Your task to perform on an android device: change your default location settings in chrome Image 0: 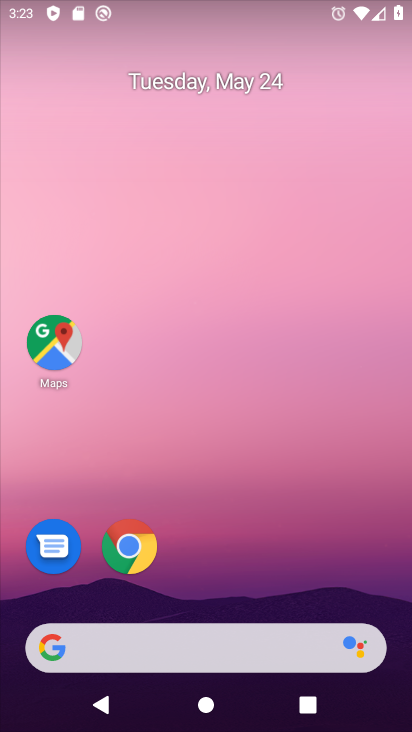
Step 0: drag from (274, 521) to (224, 9)
Your task to perform on an android device: change your default location settings in chrome Image 1: 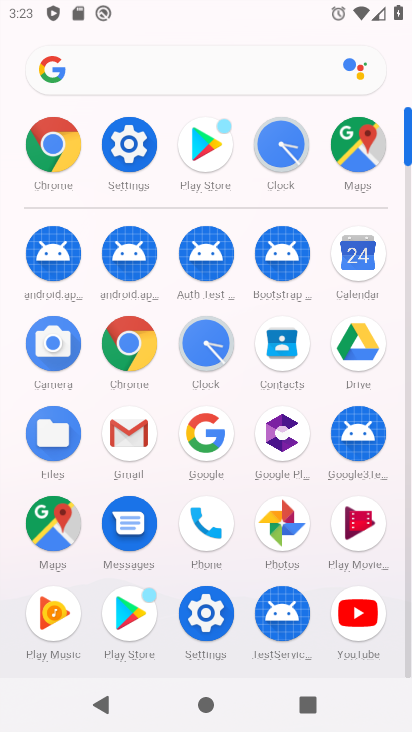
Step 1: click (46, 100)
Your task to perform on an android device: change your default location settings in chrome Image 2: 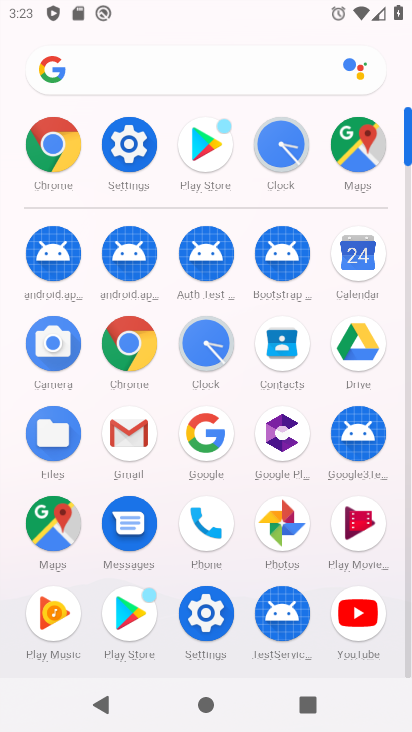
Step 2: click (50, 126)
Your task to perform on an android device: change your default location settings in chrome Image 3: 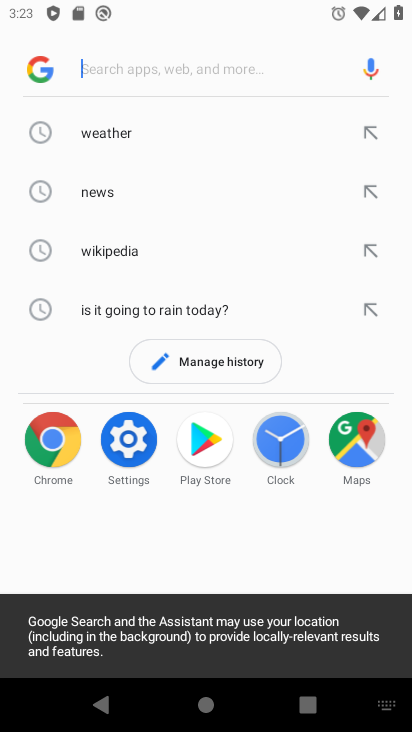
Step 3: click (53, 440)
Your task to perform on an android device: change your default location settings in chrome Image 4: 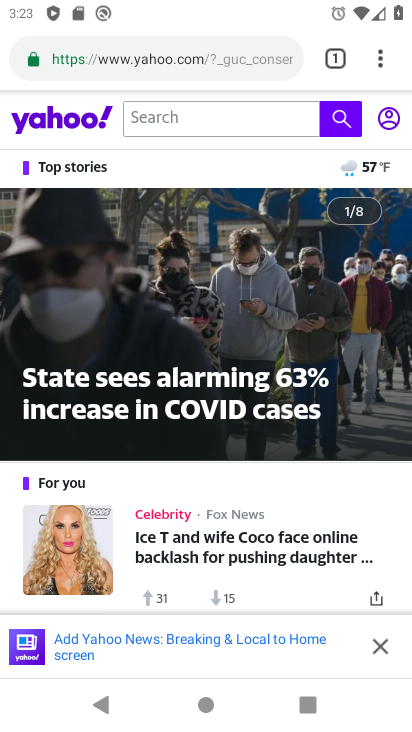
Step 4: drag from (378, 54) to (167, 566)
Your task to perform on an android device: change your default location settings in chrome Image 5: 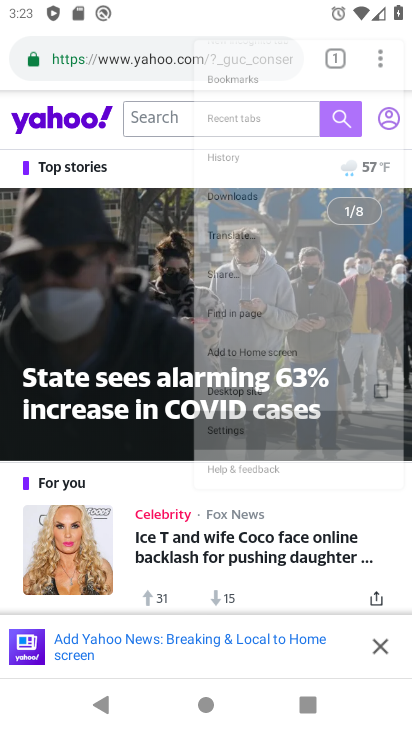
Step 5: click (187, 568)
Your task to perform on an android device: change your default location settings in chrome Image 6: 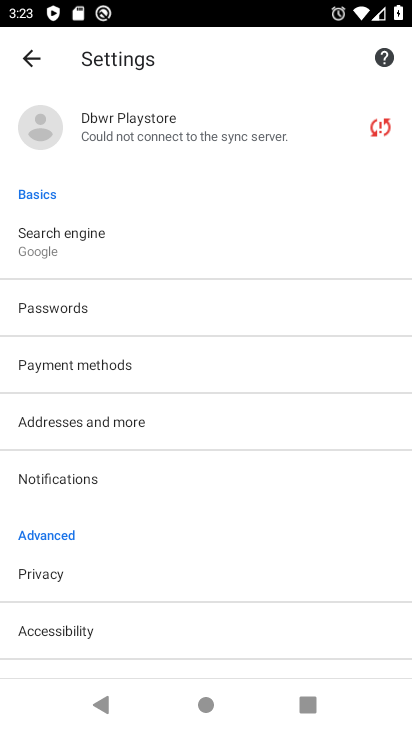
Step 6: drag from (141, 350) to (145, 142)
Your task to perform on an android device: change your default location settings in chrome Image 7: 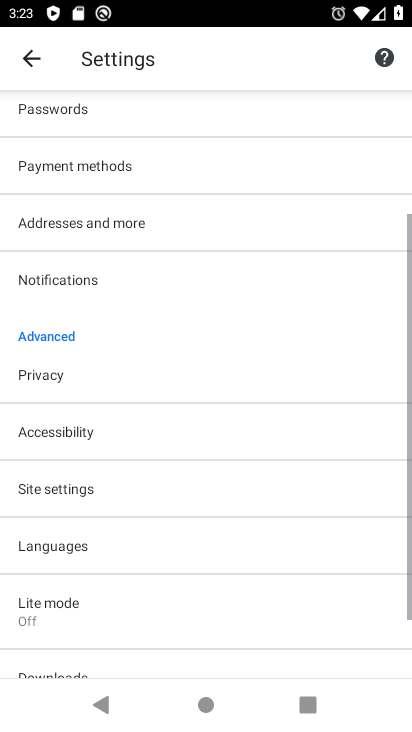
Step 7: drag from (180, 477) to (216, 200)
Your task to perform on an android device: change your default location settings in chrome Image 8: 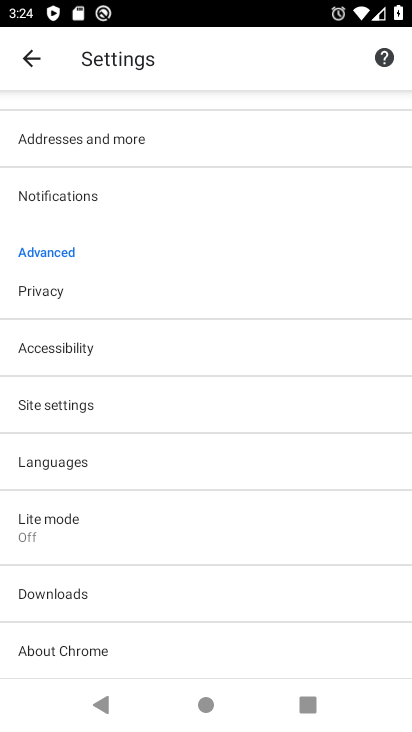
Step 8: click (57, 409)
Your task to perform on an android device: change your default location settings in chrome Image 9: 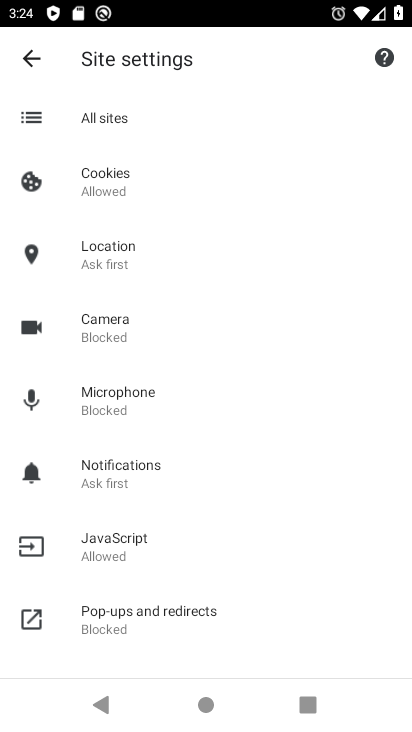
Step 9: click (97, 242)
Your task to perform on an android device: change your default location settings in chrome Image 10: 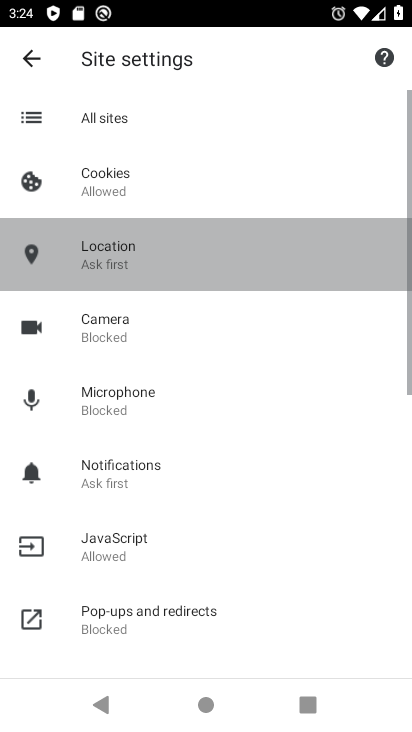
Step 10: click (97, 242)
Your task to perform on an android device: change your default location settings in chrome Image 11: 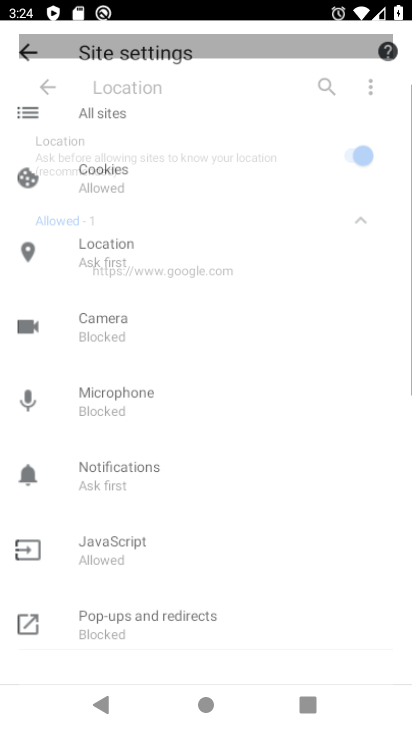
Step 11: click (97, 241)
Your task to perform on an android device: change your default location settings in chrome Image 12: 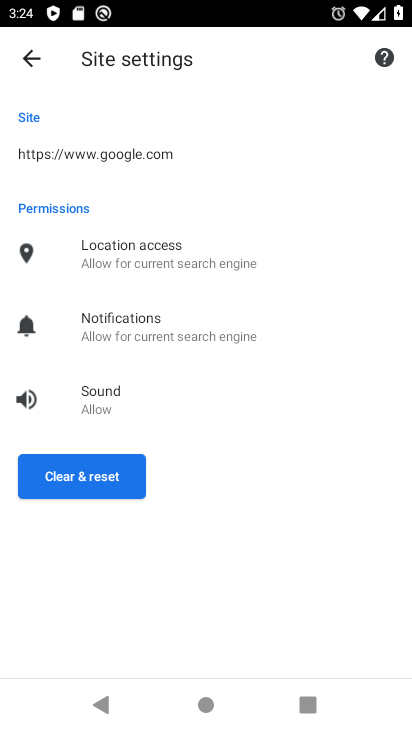
Step 12: click (34, 51)
Your task to perform on an android device: change your default location settings in chrome Image 13: 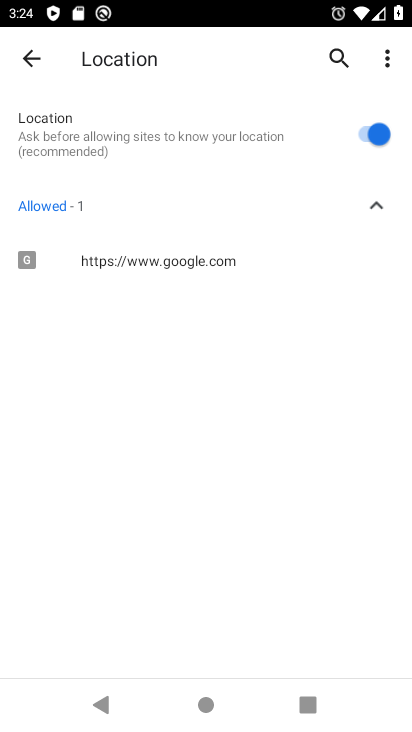
Step 13: click (374, 132)
Your task to perform on an android device: change your default location settings in chrome Image 14: 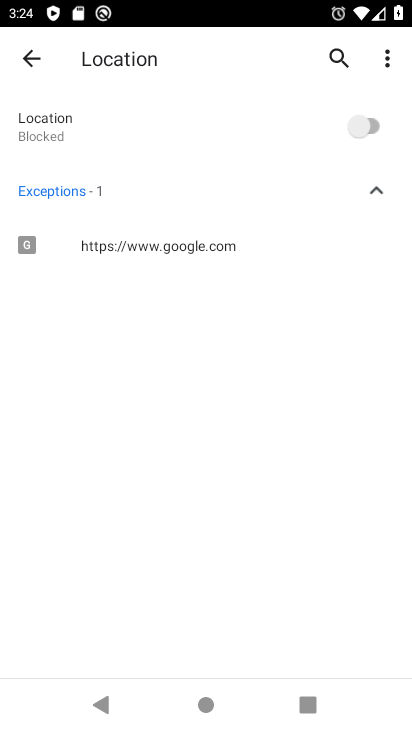
Step 14: task complete